Your task to perform on an android device: Check the weather Image 0: 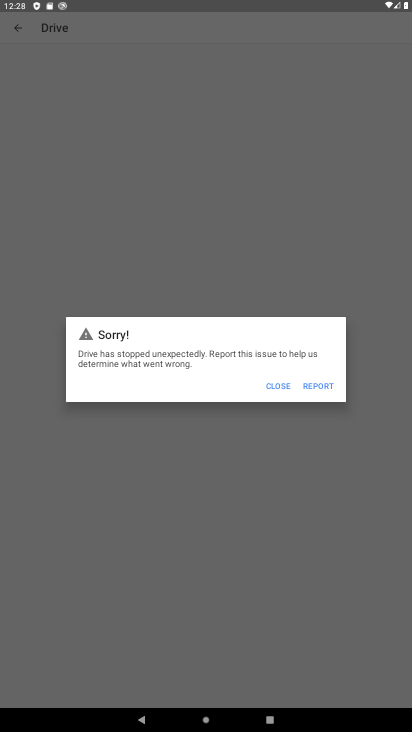
Step 0: press home button
Your task to perform on an android device: Check the weather Image 1: 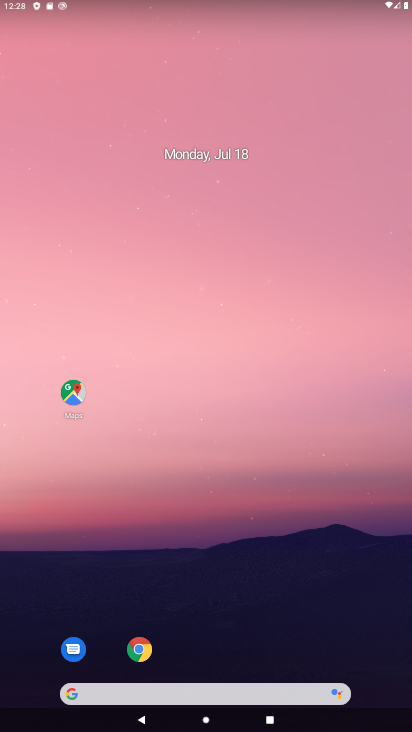
Step 1: drag from (53, 693) to (229, 372)
Your task to perform on an android device: Check the weather Image 2: 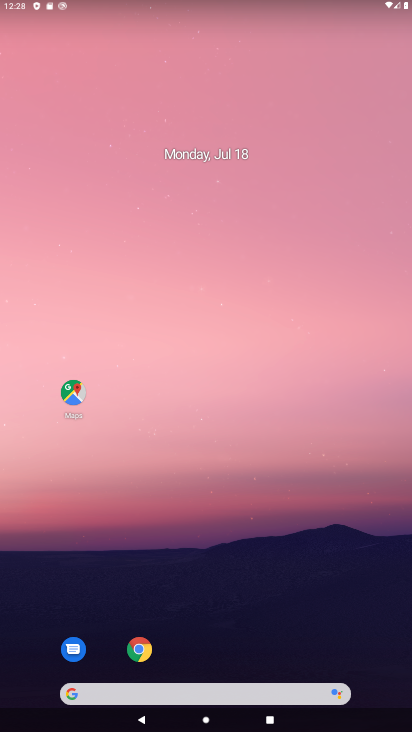
Step 2: click (107, 688)
Your task to perform on an android device: Check the weather Image 3: 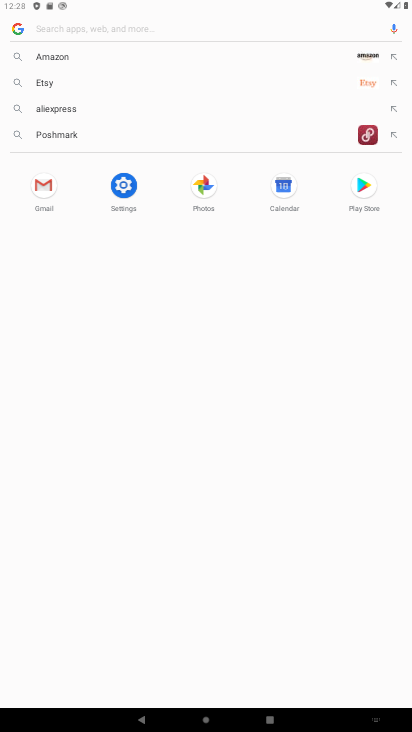
Step 3: type "Check the weather"
Your task to perform on an android device: Check the weather Image 4: 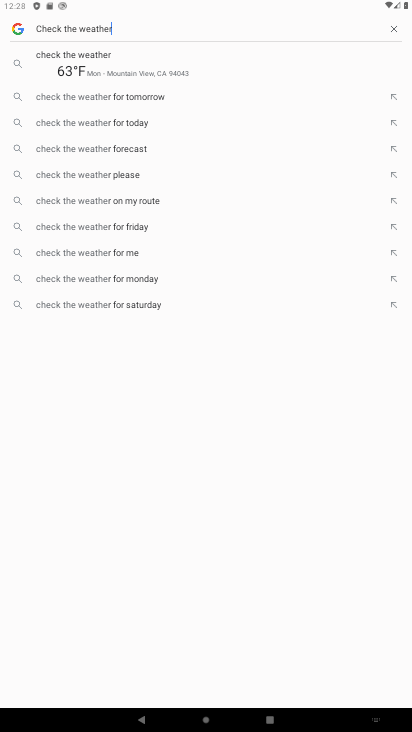
Step 4: type ""
Your task to perform on an android device: Check the weather Image 5: 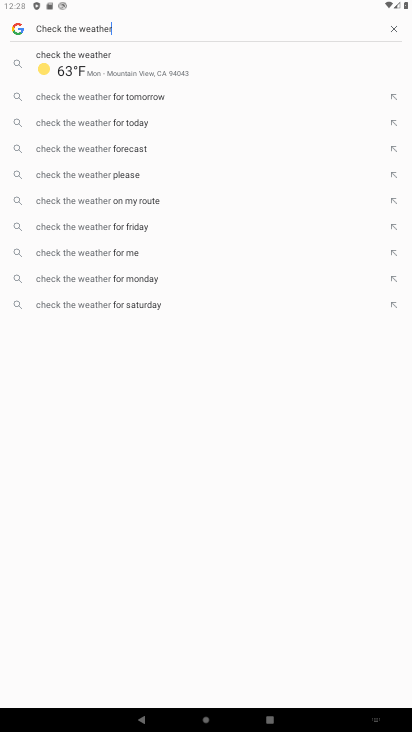
Step 5: type ""
Your task to perform on an android device: Check the weather Image 6: 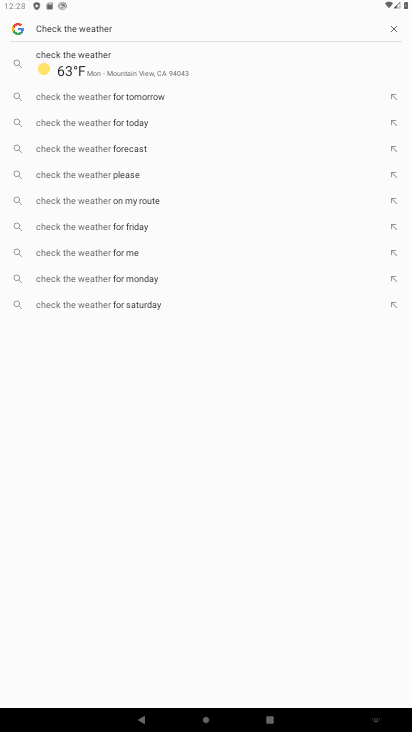
Step 6: type ""
Your task to perform on an android device: Check the weather Image 7: 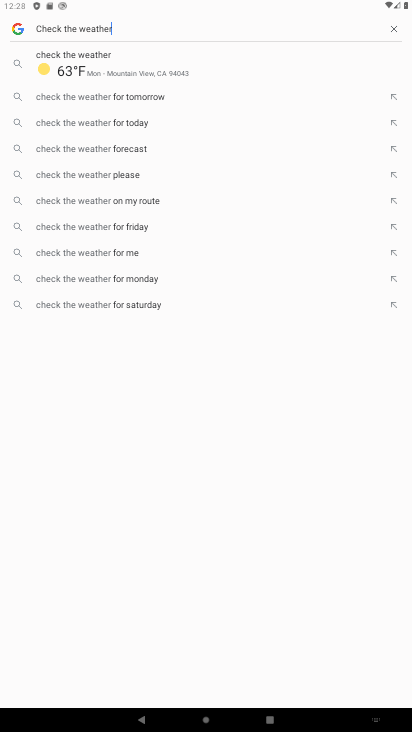
Step 7: type ""
Your task to perform on an android device: Check the weather Image 8: 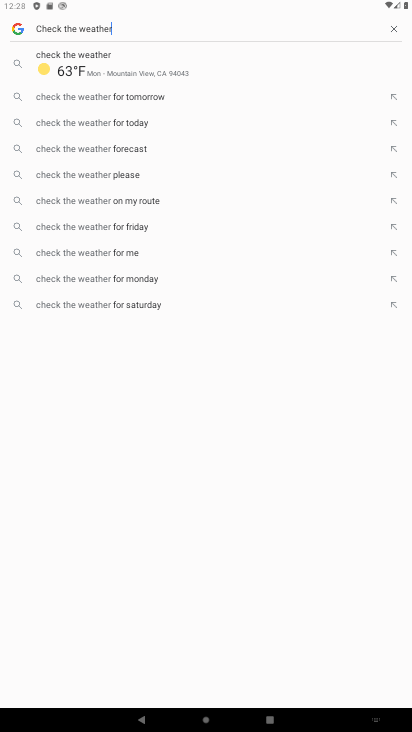
Step 8: task complete